Your task to perform on an android device: Go to Yahoo.com Image 0: 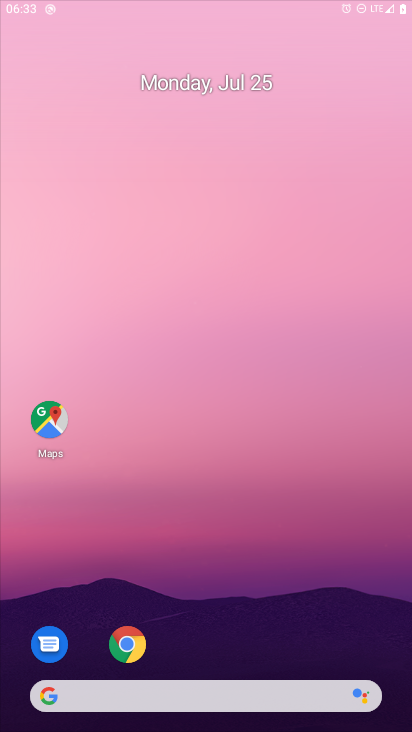
Step 0: press home button
Your task to perform on an android device: Go to Yahoo.com Image 1: 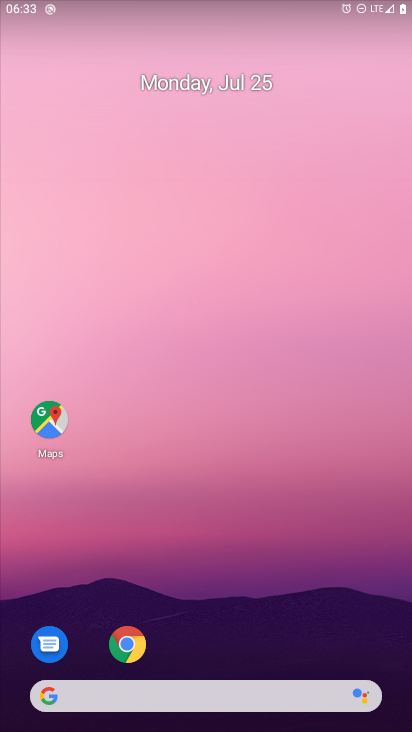
Step 1: click (44, 700)
Your task to perform on an android device: Go to Yahoo.com Image 2: 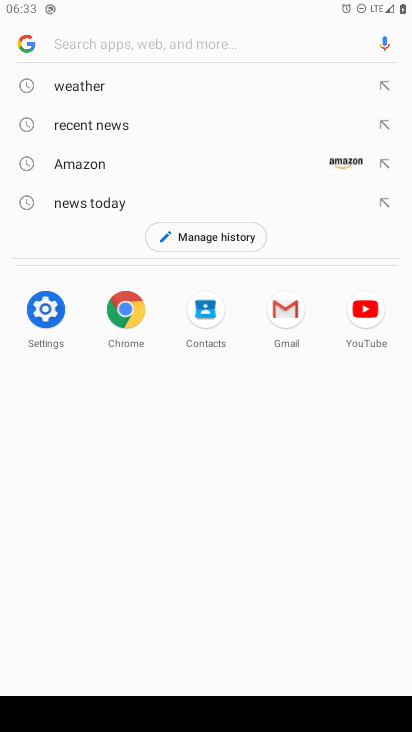
Step 2: type "Yahoo.com"
Your task to perform on an android device: Go to Yahoo.com Image 3: 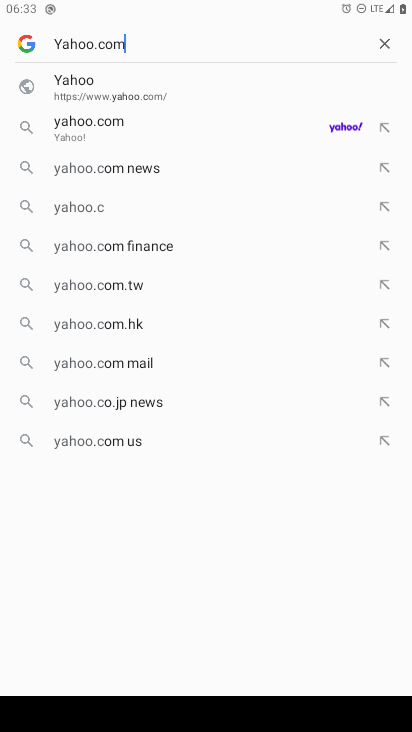
Step 3: press enter
Your task to perform on an android device: Go to Yahoo.com Image 4: 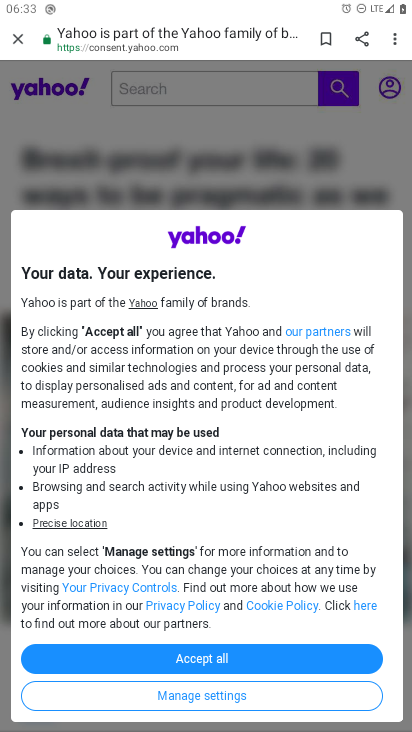
Step 4: click (287, 661)
Your task to perform on an android device: Go to Yahoo.com Image 5: 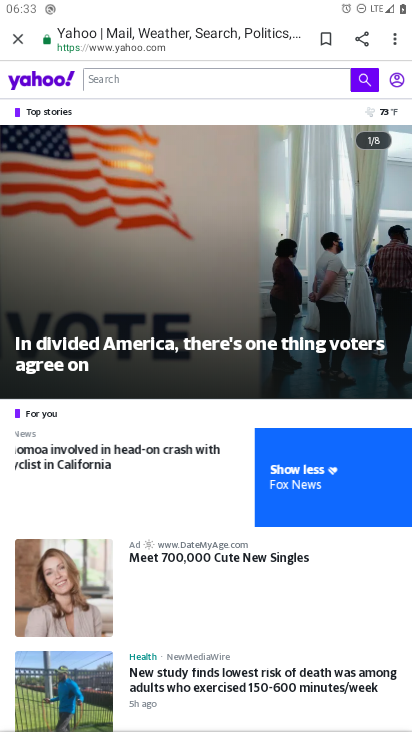
Step 5: task complete